Your task to perform on an android device: turn on the 24-hour format for clock Image 0: 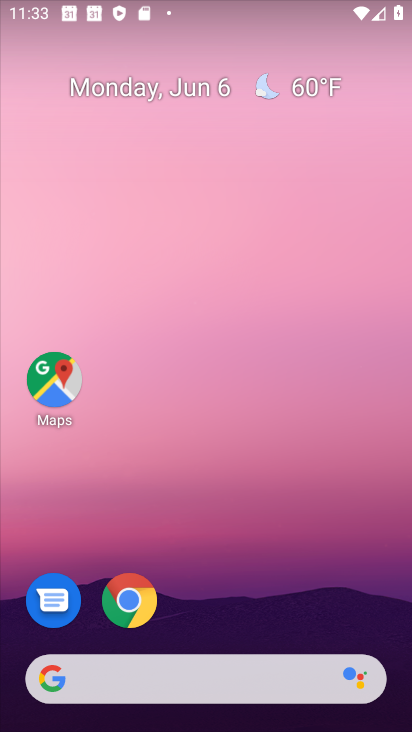
Step 0: drag from (255, 721) to (245, 38)
Your task to perform on an android device: turn on the 24-hour format for clock Image 1: 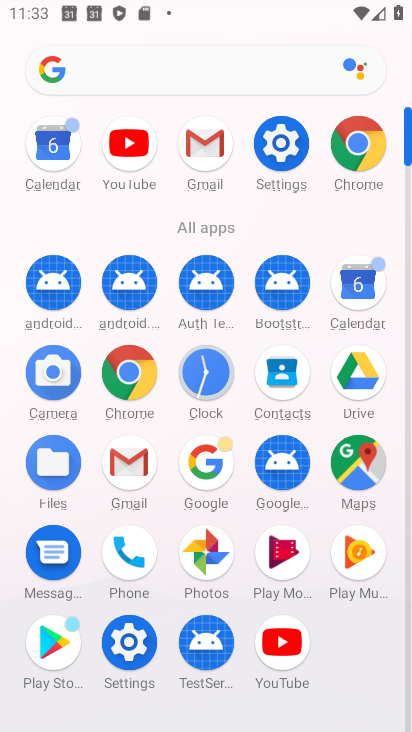
Step 1: click (202, 374)
Your task to perform on an android device: turn on the 24-hour format for clock Image 2: 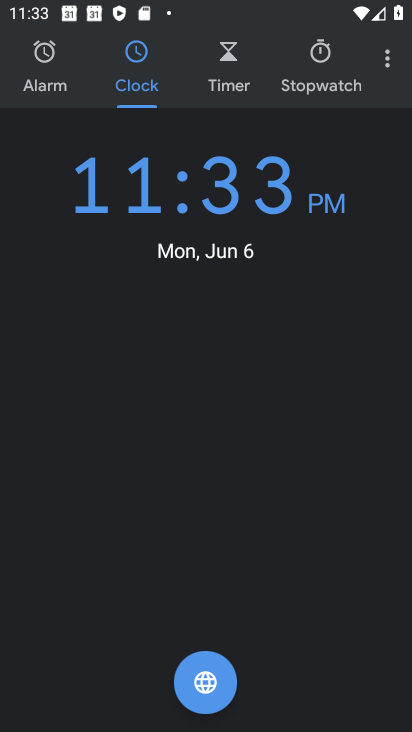
Step 2: click (388, 65)
Your task to perform on an android device: turn on the 24-hour format for clock Image 3: 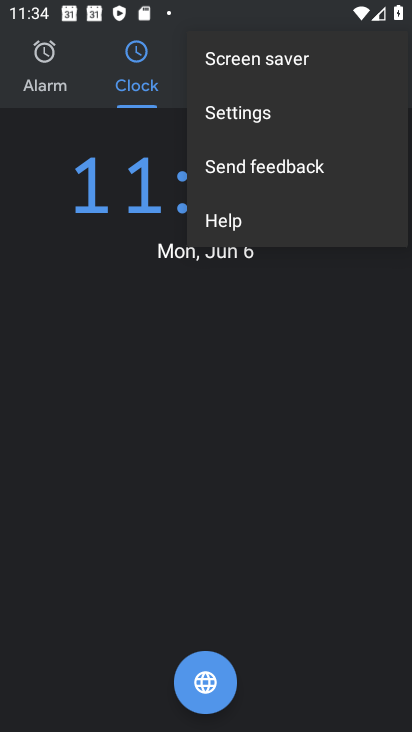
Step 3: click (245, 112)
Your task to perform on an android device: turn on the 24-hour format for clock Image 4: 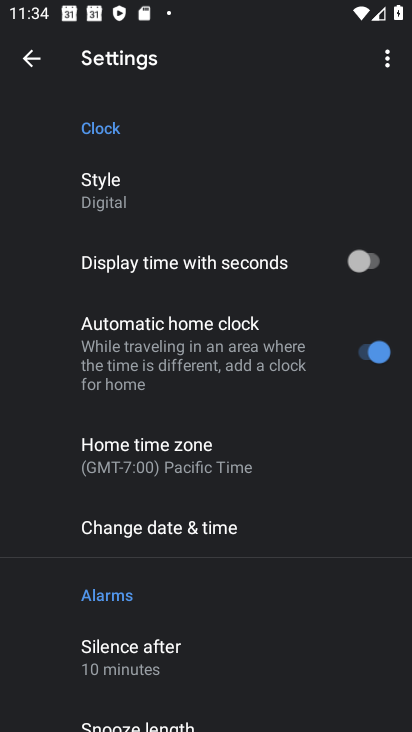
Step 4: click (152, 529)
Your task to perform on an android device: turn on the 24-hour format for clock Image 5: 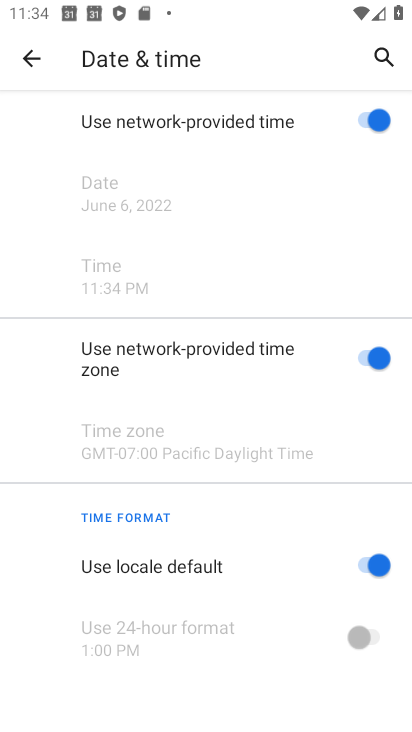
Step 5: click (367, 558)
Your task to perform on an android device: turn on the 24-hour format for clock Image 6: 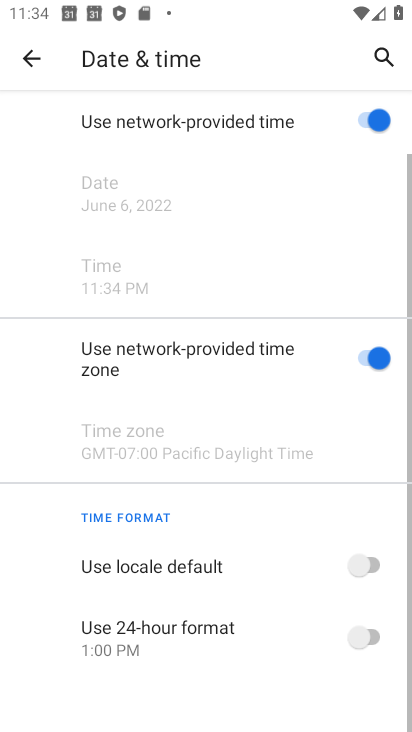
Step 6: click (375, 637)
Your task to perform on an android device: turn on the 24-hour format for clock Image 7: 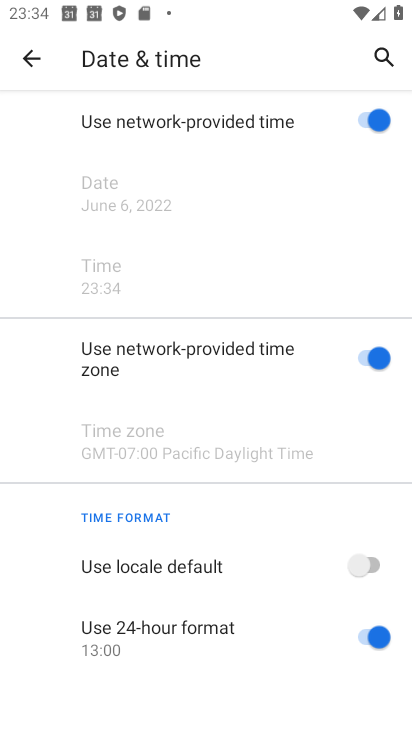
Step 7: task complete